Your task to perform on an android device: turn off notifications in google photos Image 0: 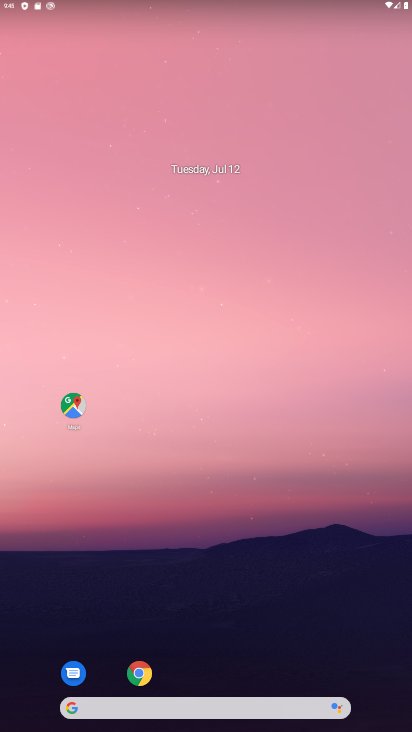
Step 0: drag from (271, 596) to (345, 30)
Your task to perform on an android device: turn off notifications in google photos Image 1: 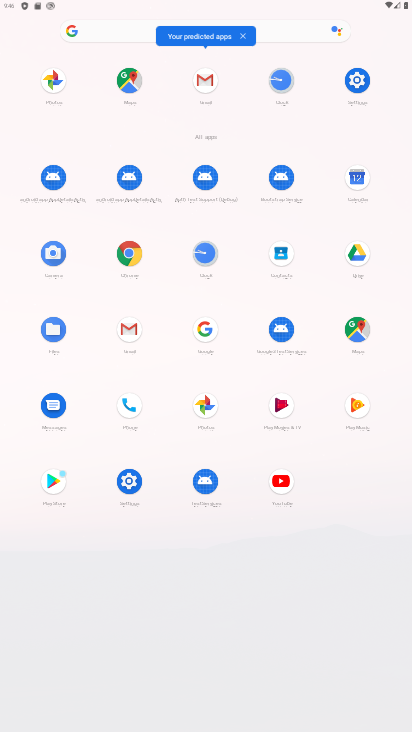
Step 1: click (211, 403)
Your task to perform on an android device: turn off notifications in google photos Image 2: 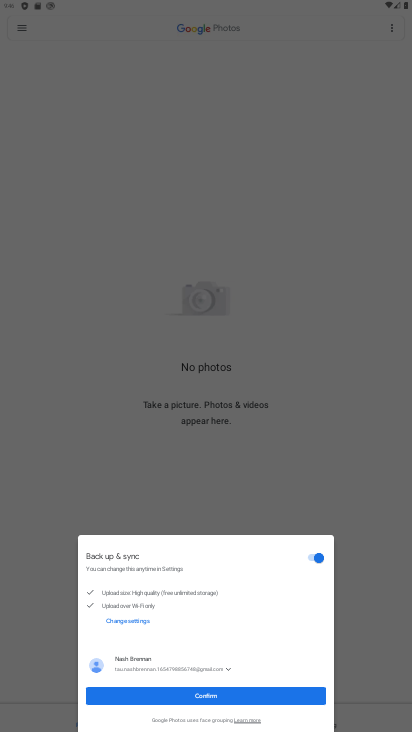
Step 2: click (240, 695)
Your task to perform on an android device: turn off notifications in google photos Image 3: 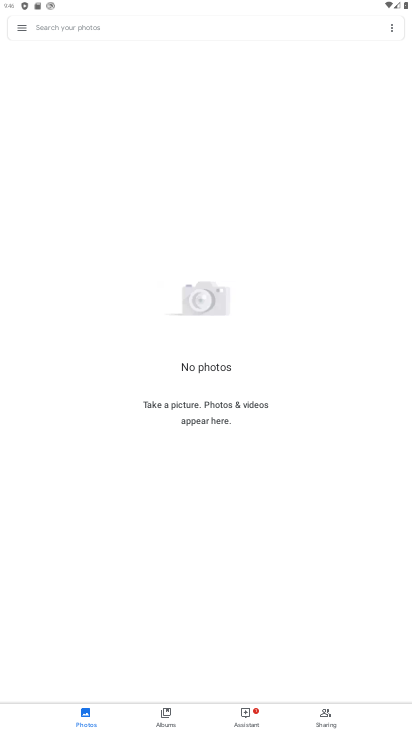
Step 3: click (25, 26)
Your task to perform on an android device: turn off notifications in google photos Image 4: 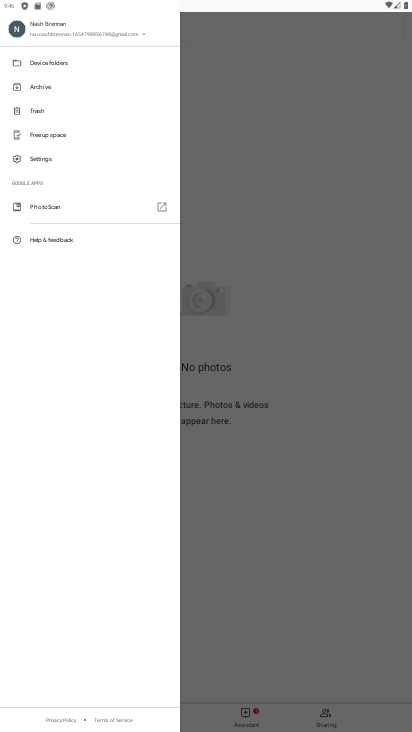
Step 4: click (42, 158)
Your task to perform on an android device: turn off notifications in google photos Image 5: 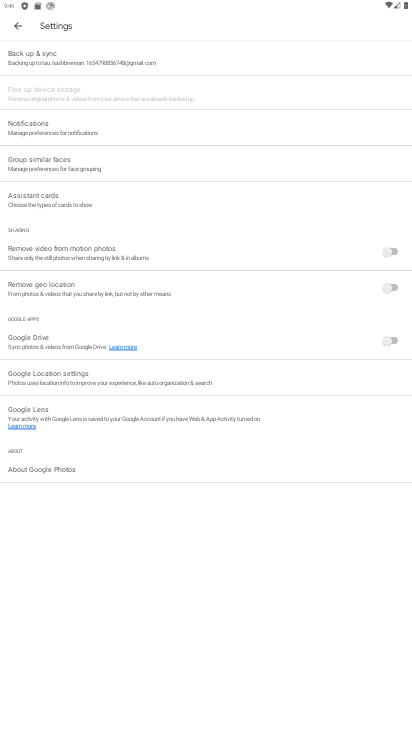
Step 5: click (57, 129)
Your task to perform on an android device: turn off notifications in google photos Image 6: 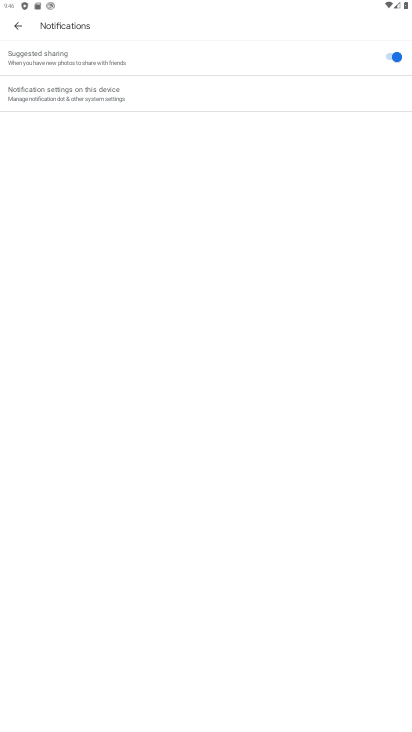
Step 6: click (65, 104)
Your task to perform on an android device: turn off notifications in google photos Image 7: 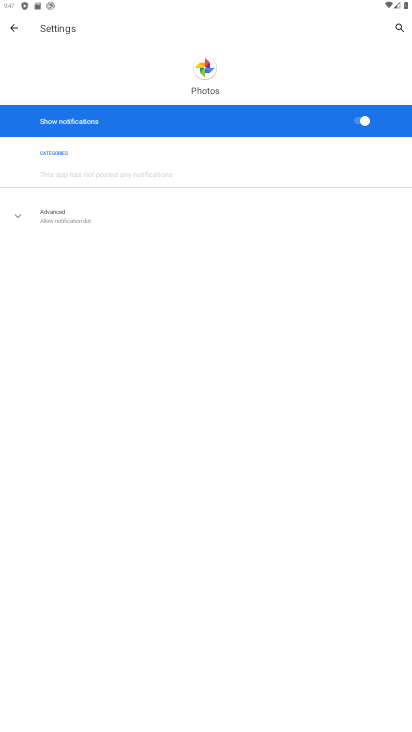
Step 7: click (371, 121)
Your task to perform on an android device: turn off notifications in google photos Image 8: 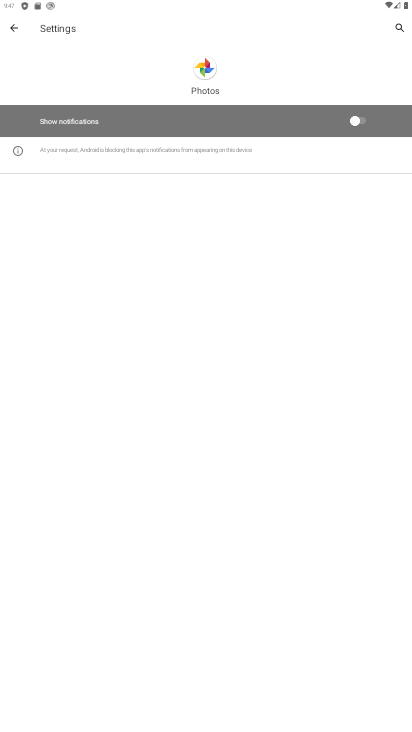
Step 8: task complete